Your task to perform on an android device: turn on wifi Image 0: 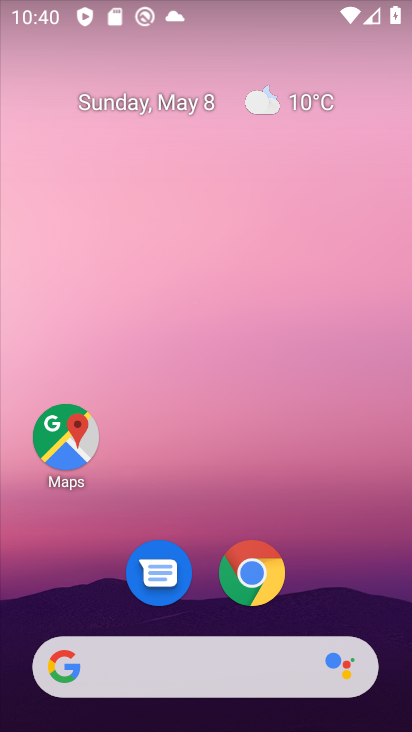
Step 0: drag from (333, 2) to (335, 716)
Your task to perform on an android device: turn on wifi Image 1: 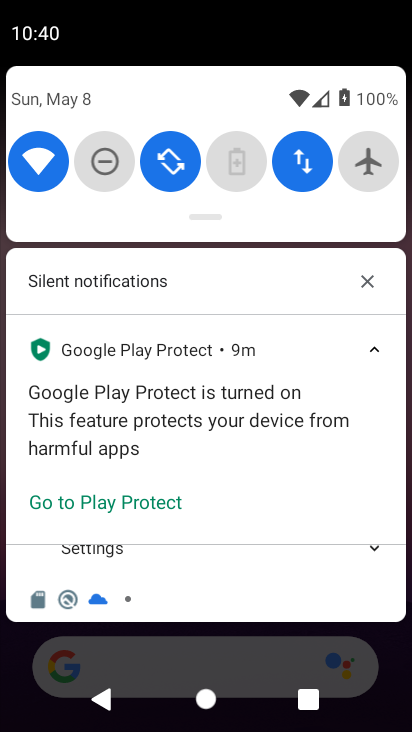
Step 1: task complete